Your task to perform on an android device: Open Android settings Image 0: 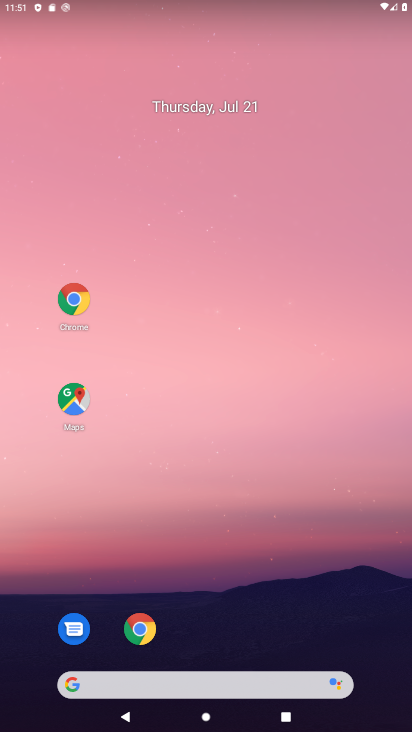
Step 0: drag from (165, 581) to (177, 347)
Your task to perform on an android device: Open Android settings Image 1: 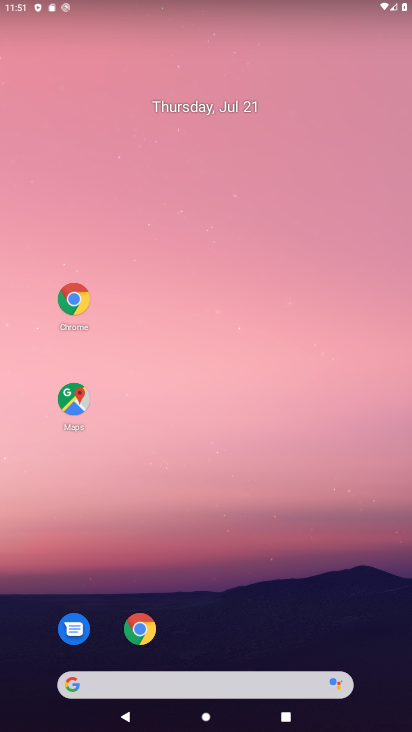
Step 1: drag from (230, 515) to (269, 136)
Your task to perform on an android device: Open Android settings Image 2: 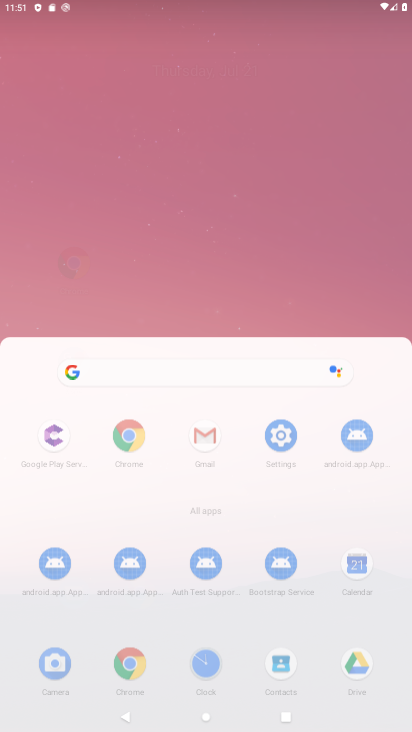
Step 2: drag from (202, 522) to (185, 123)
Your task to perform on an android device: Open Android settings Image 3: 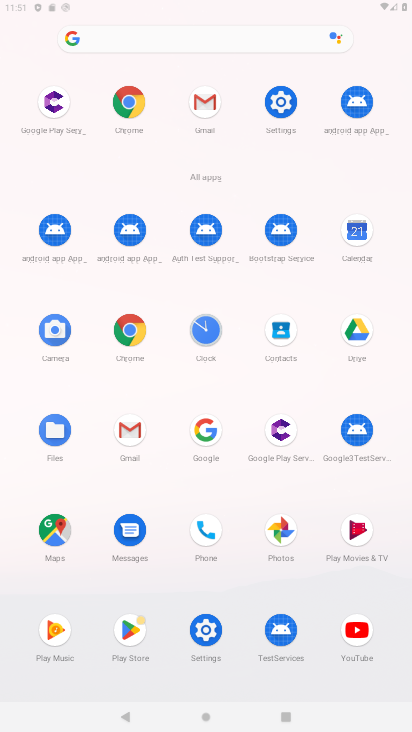
Step 3: drag from (238, 377) to (238, 100)
Your task to perform on an android device: Open Android settings Image 4: 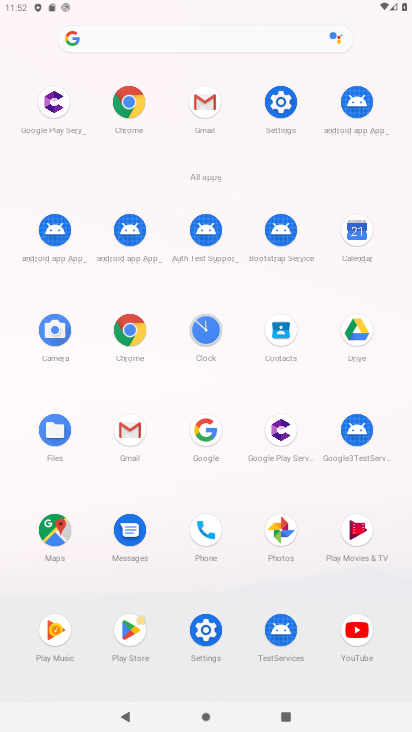
Step 4: click (275, 115)
Your task to perform on an android device: Open Android settings Image 5: 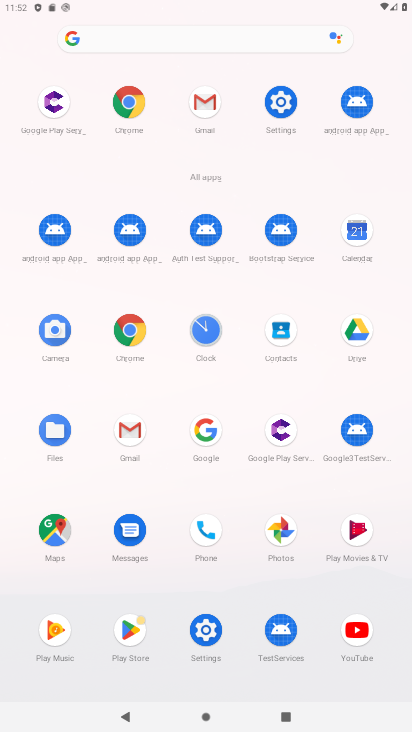
Step 5: click (274, 114)
Your task to perform on an android device: Open Android settings Image 6: 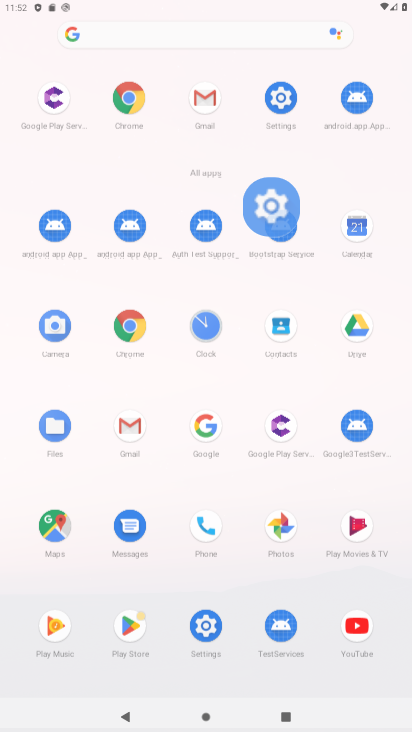
Step 6: click (278, 116)
Your task to perform on an android device: Open Android settings Image 7: 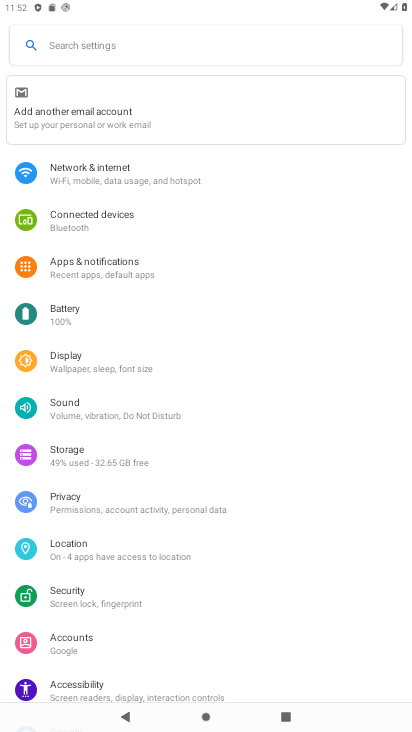
Step 7: drag from (117, 579) to (126, 251)
Your task to perform on an android device: Open Android settings Image 8: 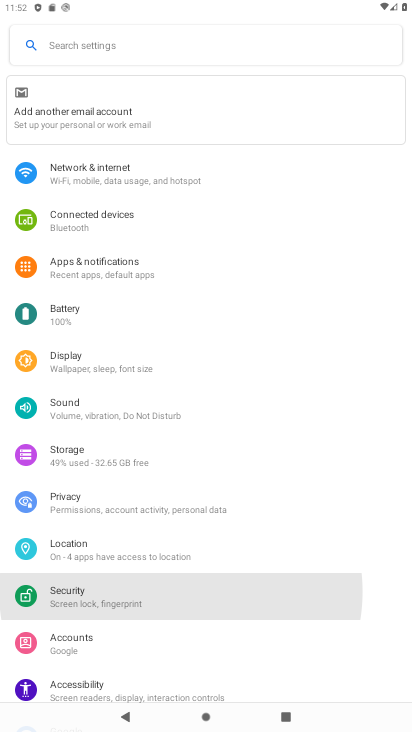
Step 8: drag from (132, 515) to (149, 186)
Your task to perform on an android device: Open Android settings Image 9: 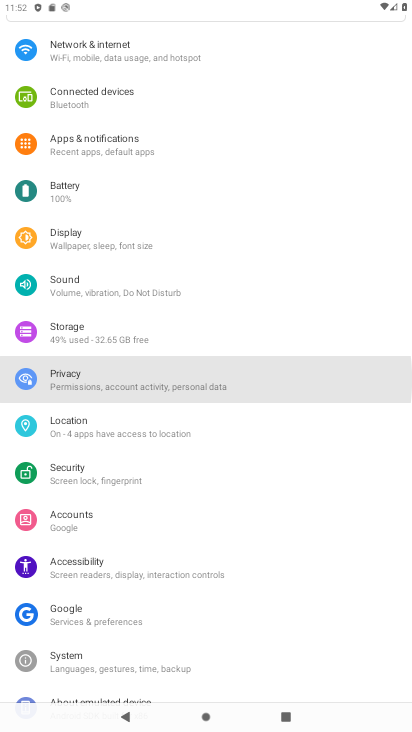
Step 9: drag from (132, 444) to (163, 181)
Your task to perform on an android device: Open Android settings Image 10: 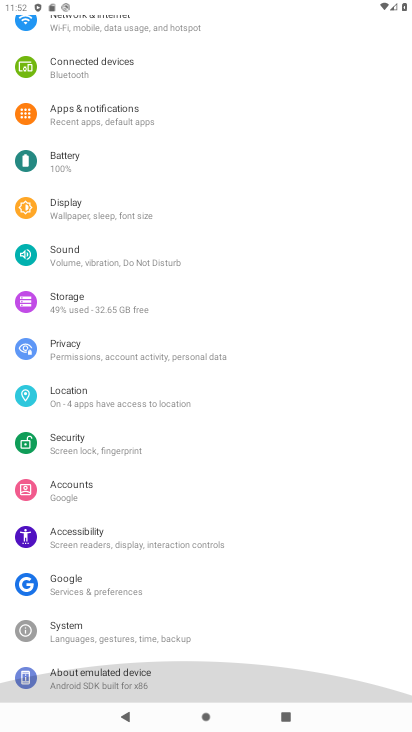
Step 10: drag from (115, 488) to (123, 238)
Your task to perform on an android device: Open Android settings Image 11: 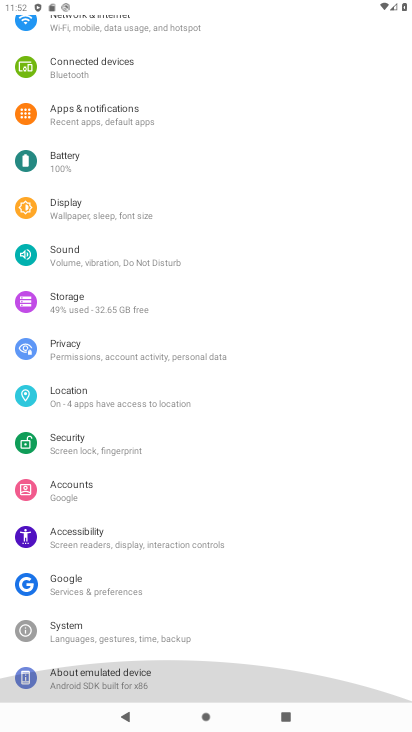
Step 11: drag from (63, 541) to (89, 271)
Your task to perform on an android device: Open Android settings Image 12: 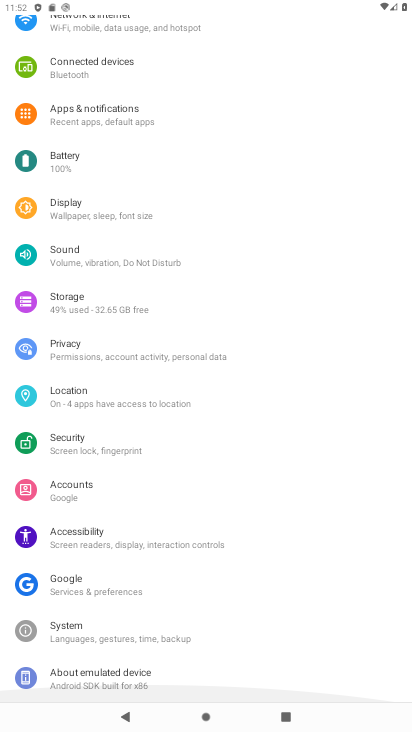
Step 12: click (80, 678)
Your task to perform on an android device: Open Android settings Image 13: 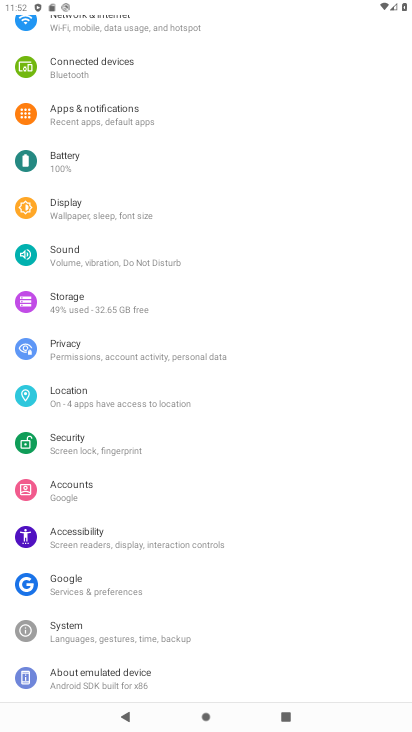
Step 13: click (80, 678)
Your task to perform on an android device: Open Android settings Image 14: 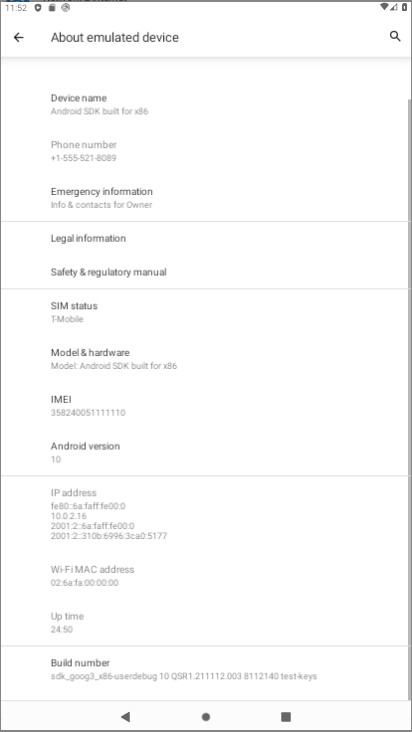
Step 14: click (85, 684)
Your task to perform on an android device: Open Android settings Image 15: 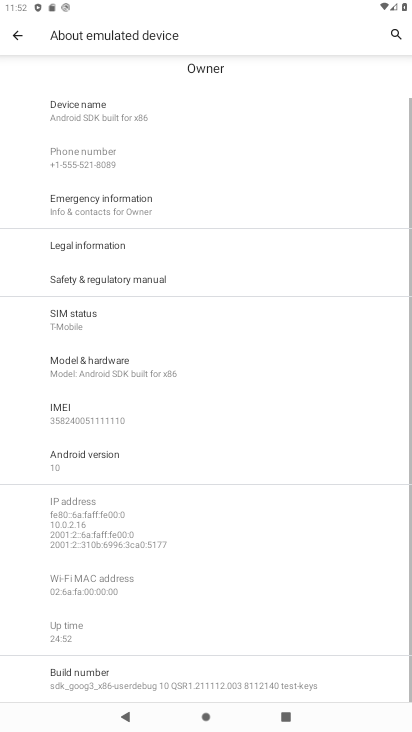
Step 15: task complete